Your task to perform on an android device: uninstall "AliExpress" Image 0: 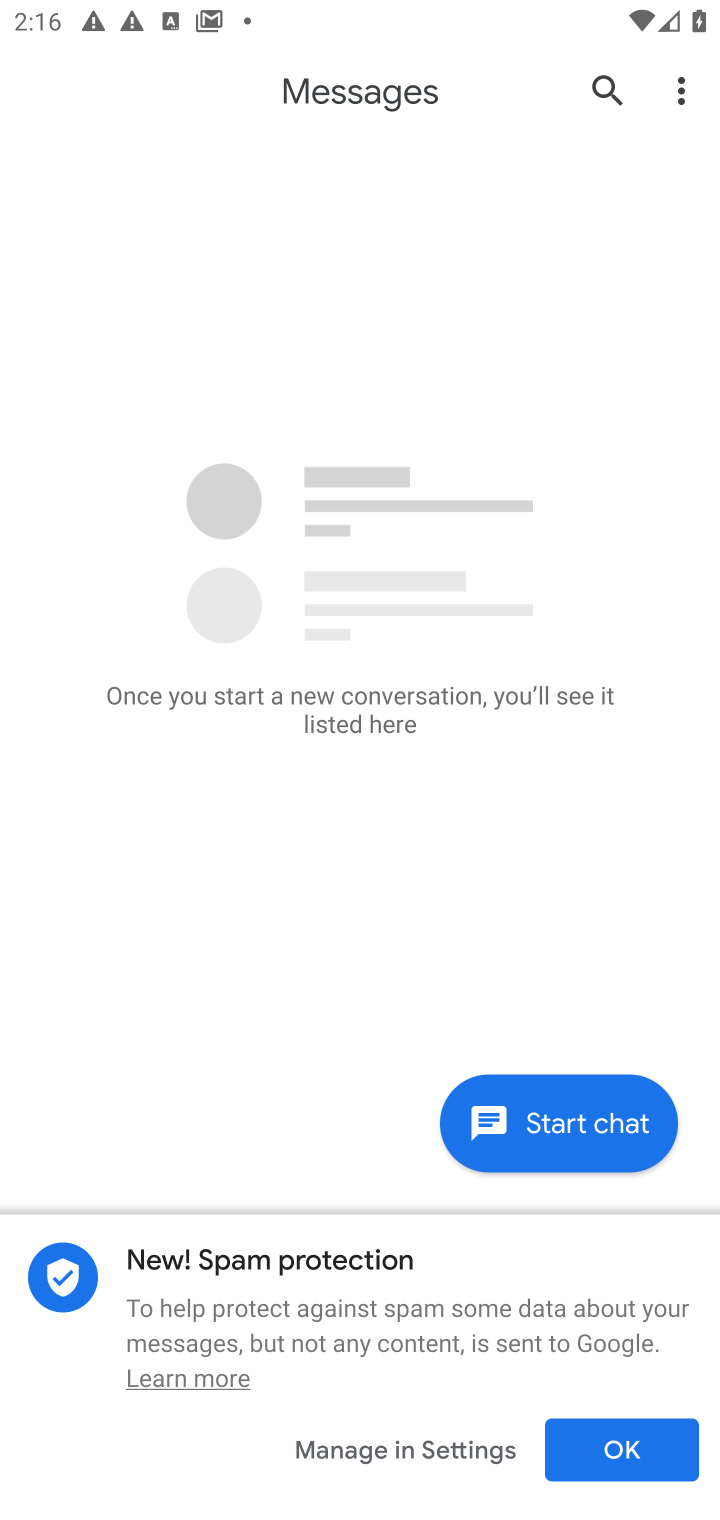
Step 0: press home button
Your task to perform on an android device: uninstall "AliExpress" Image 1: 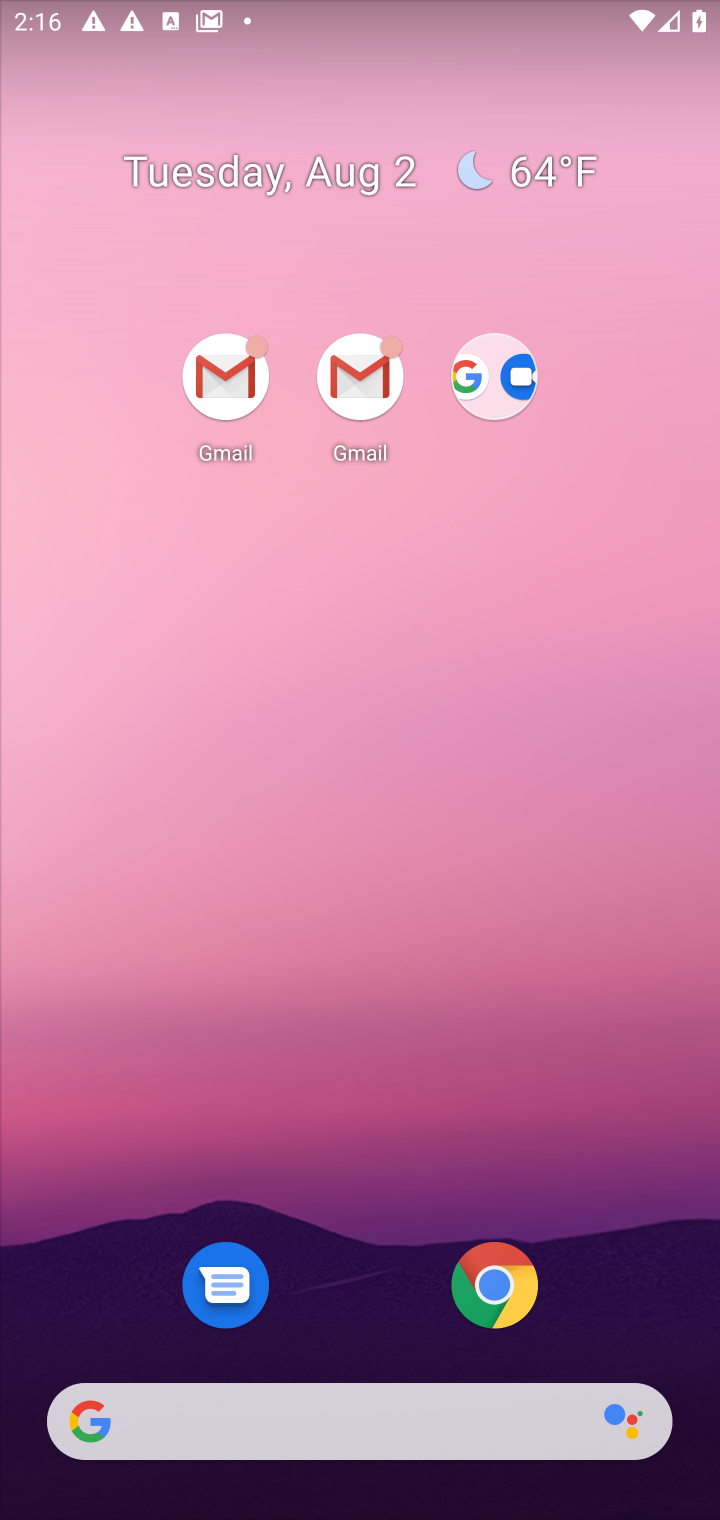
Step 1: drag from (573, 788) to (549, 197)
Your task to perform on an android device: uninstall "AliExpress" Image 2: 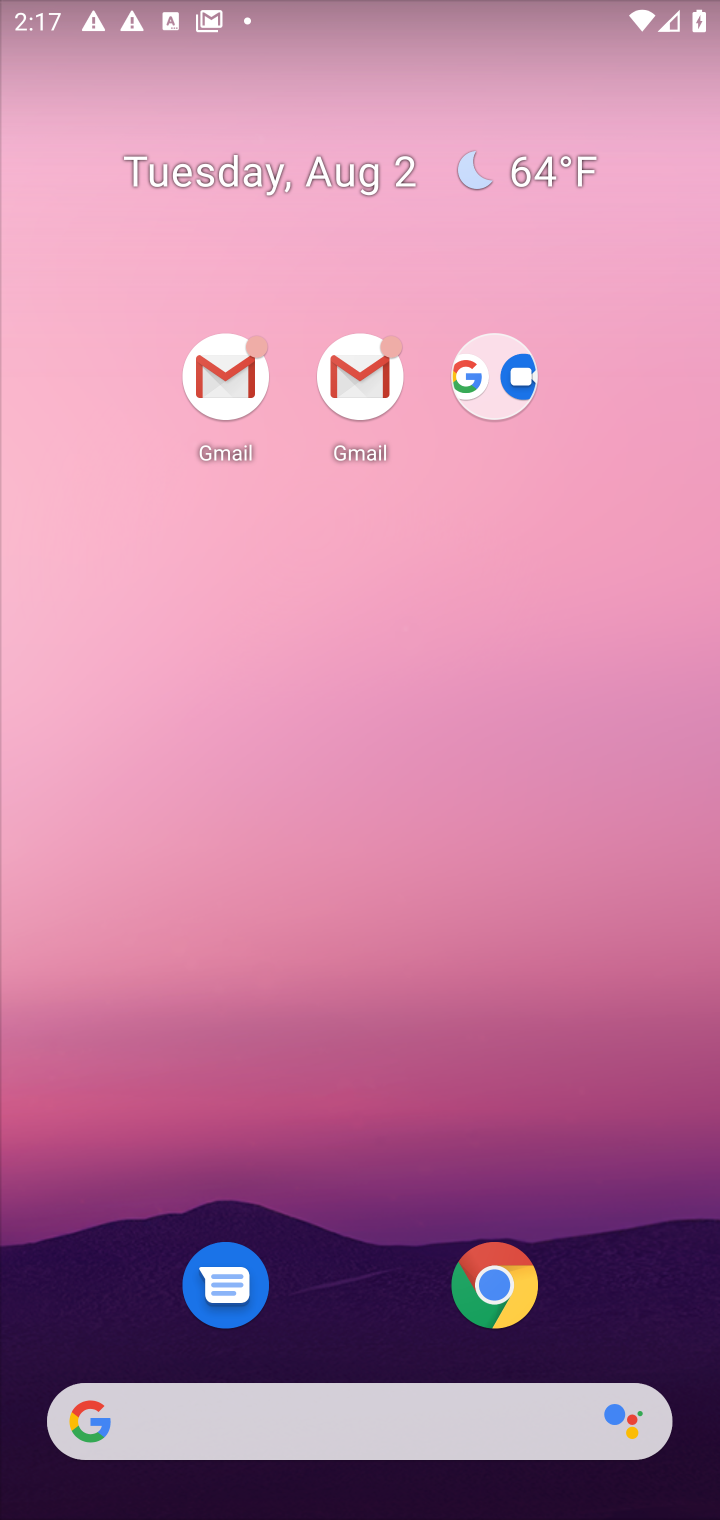
Step 2: drag from (286, 1208) to (412, 140)
Your task to perform on an android device: uninstall "AliExpress" Image 3: 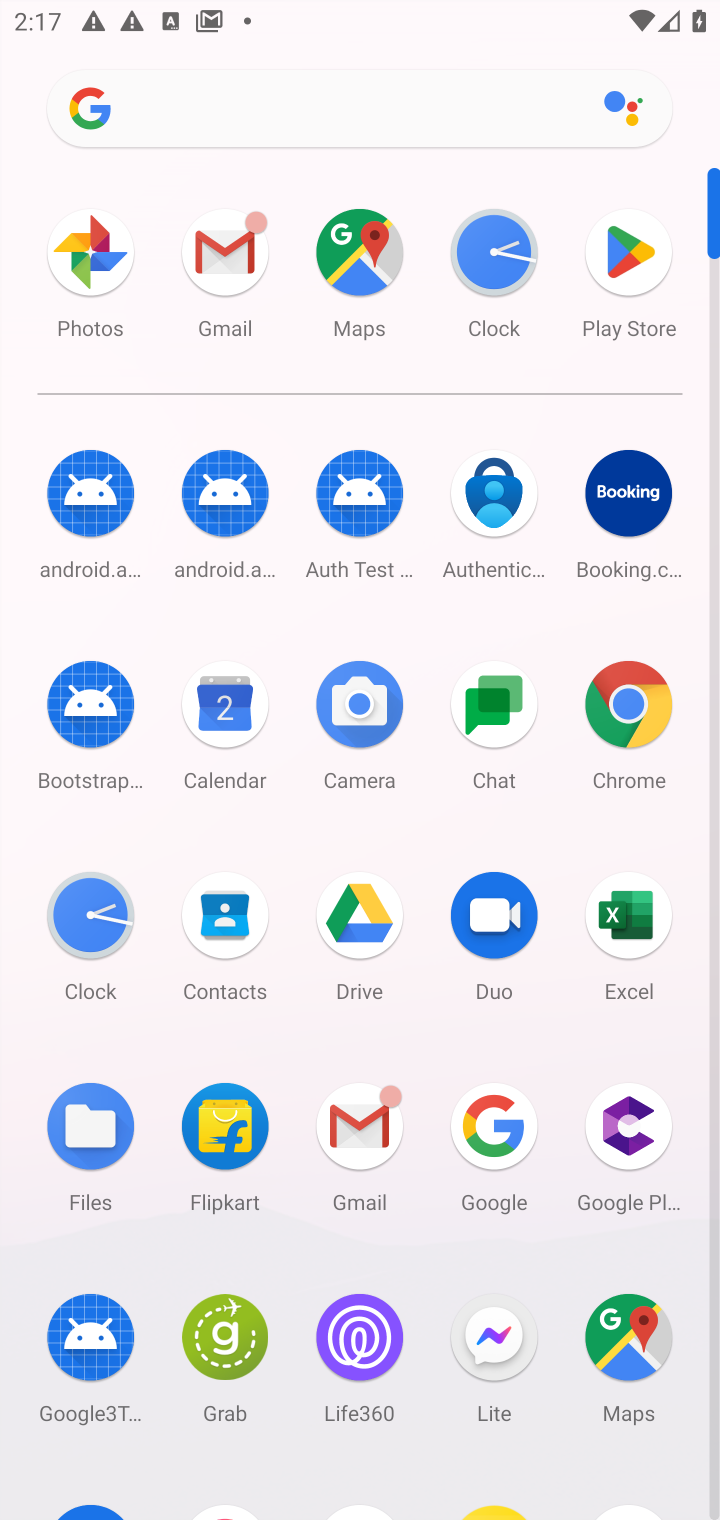
Step 3: drag from (414, 1165) to (412, 434)
Your task to perform on an android device: uninstall "AliExpress" Image 4: 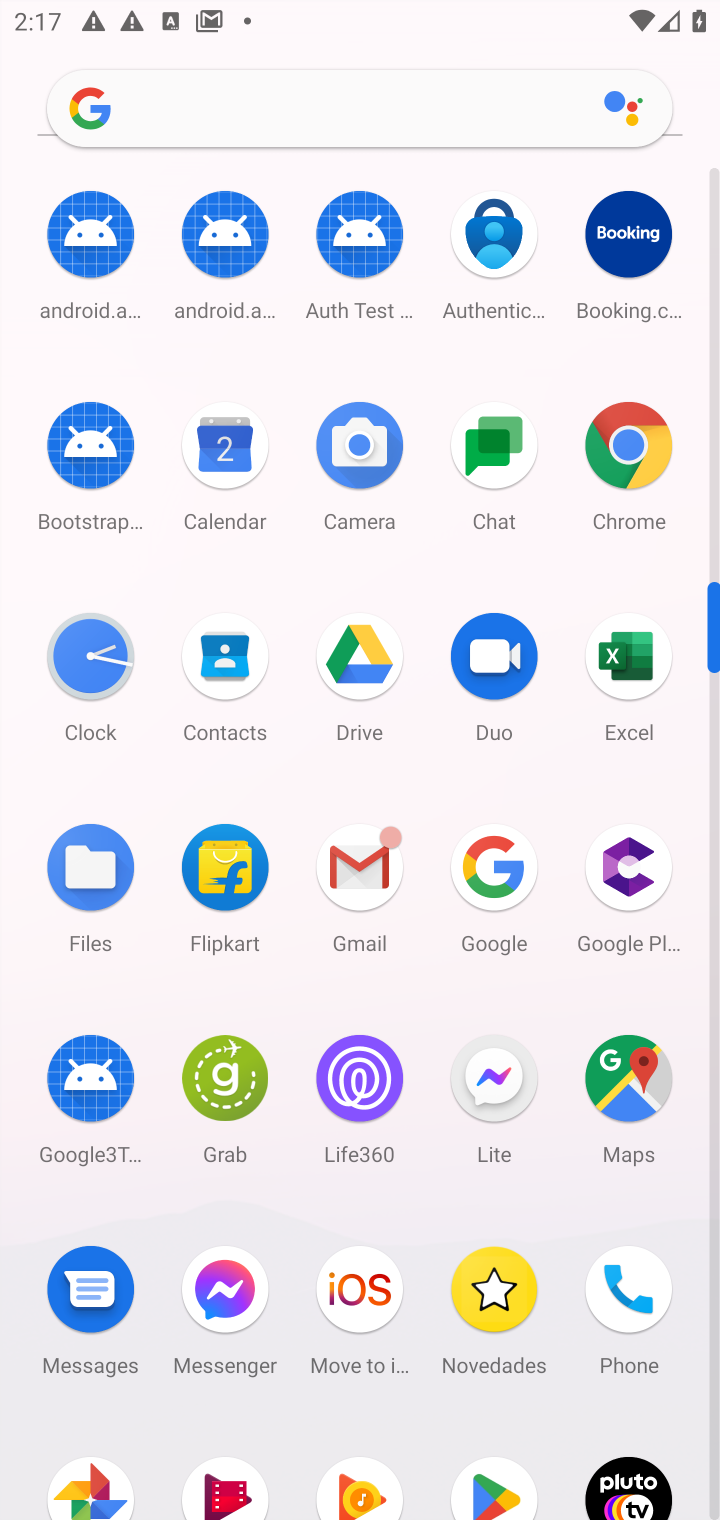
Step 4: click (520, 1503)
Your task to perform on an android device: uninstall "AliExpress" Image 5: 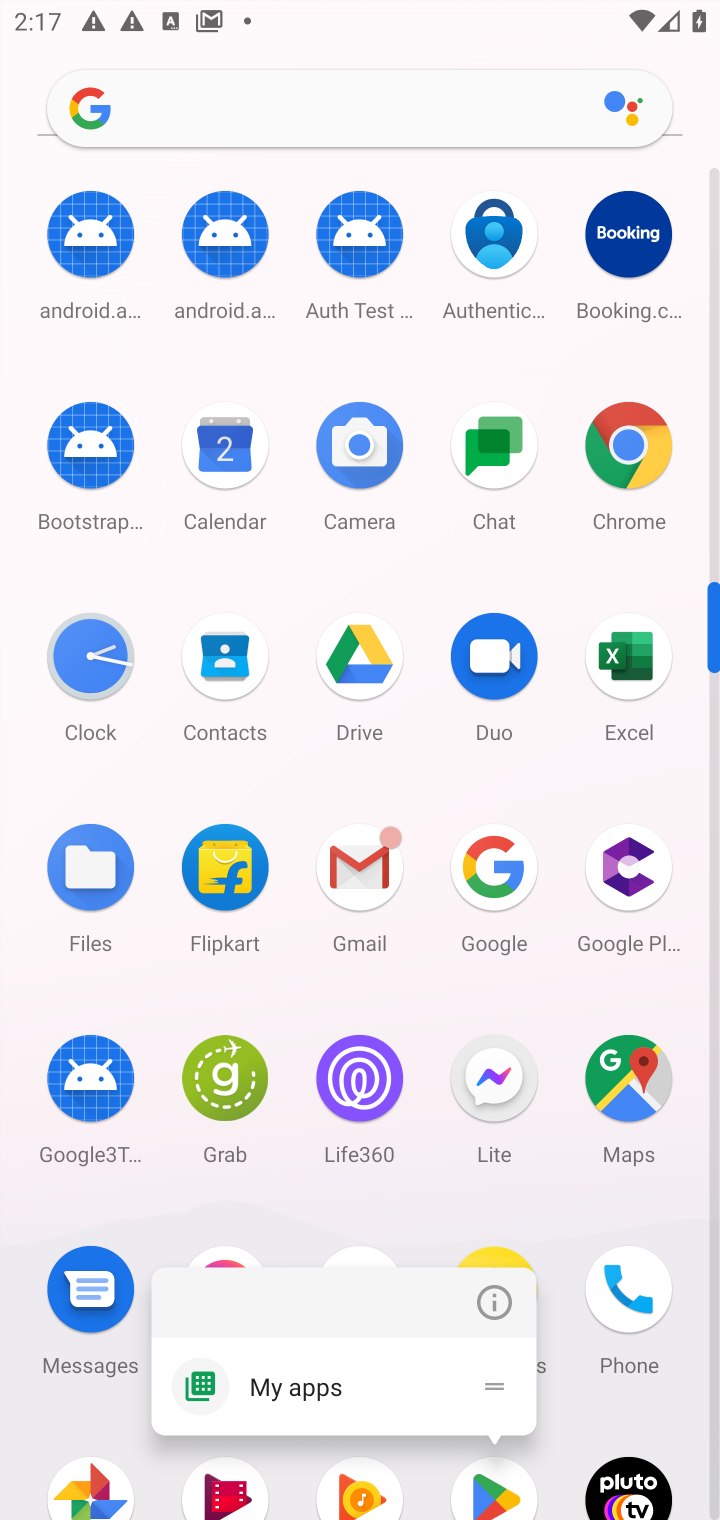
Step 5: click (495, 1505)
Your task to perform on an android device: uninstall "AliExpress" Image 6: 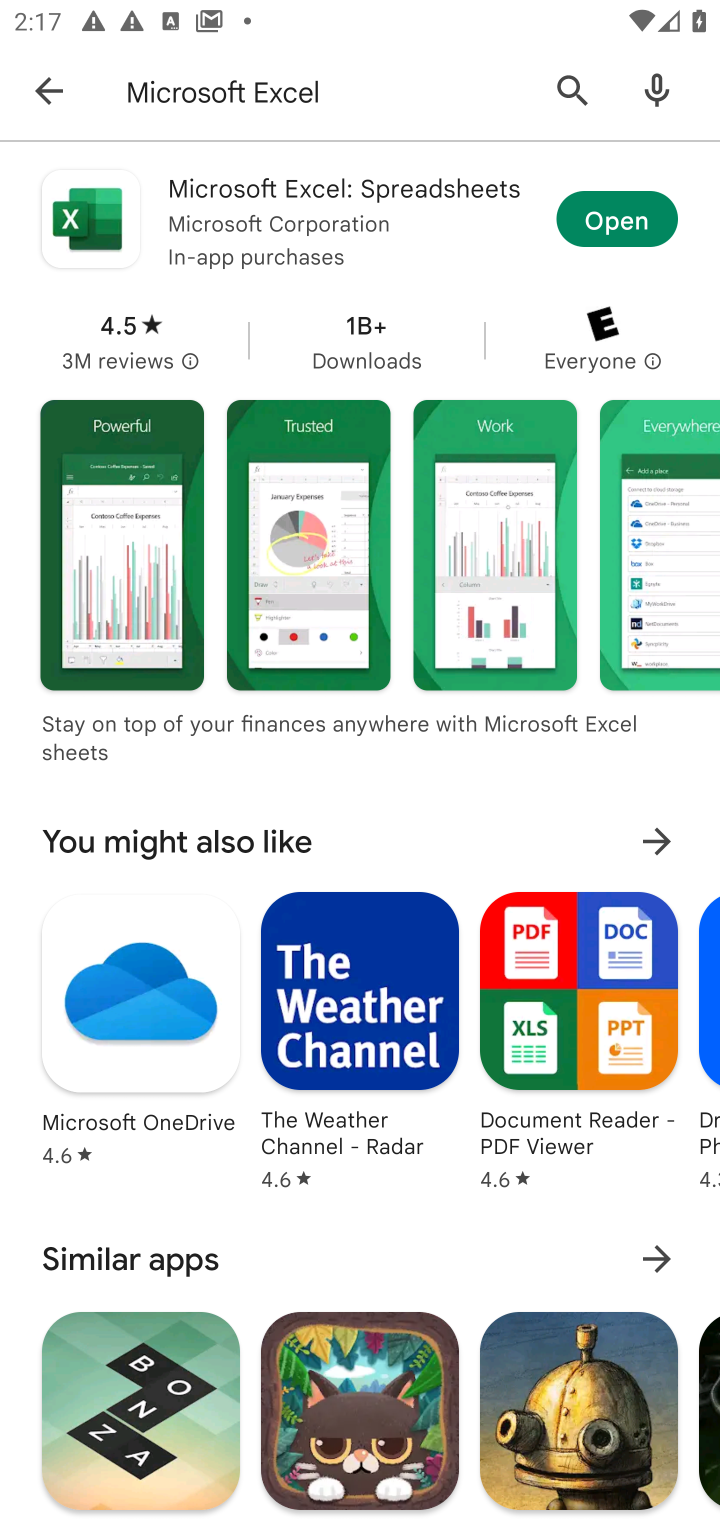
Step 6: click (288, 71)
Your task to perform on an android device: uninstall "AliExpress" Image 7: 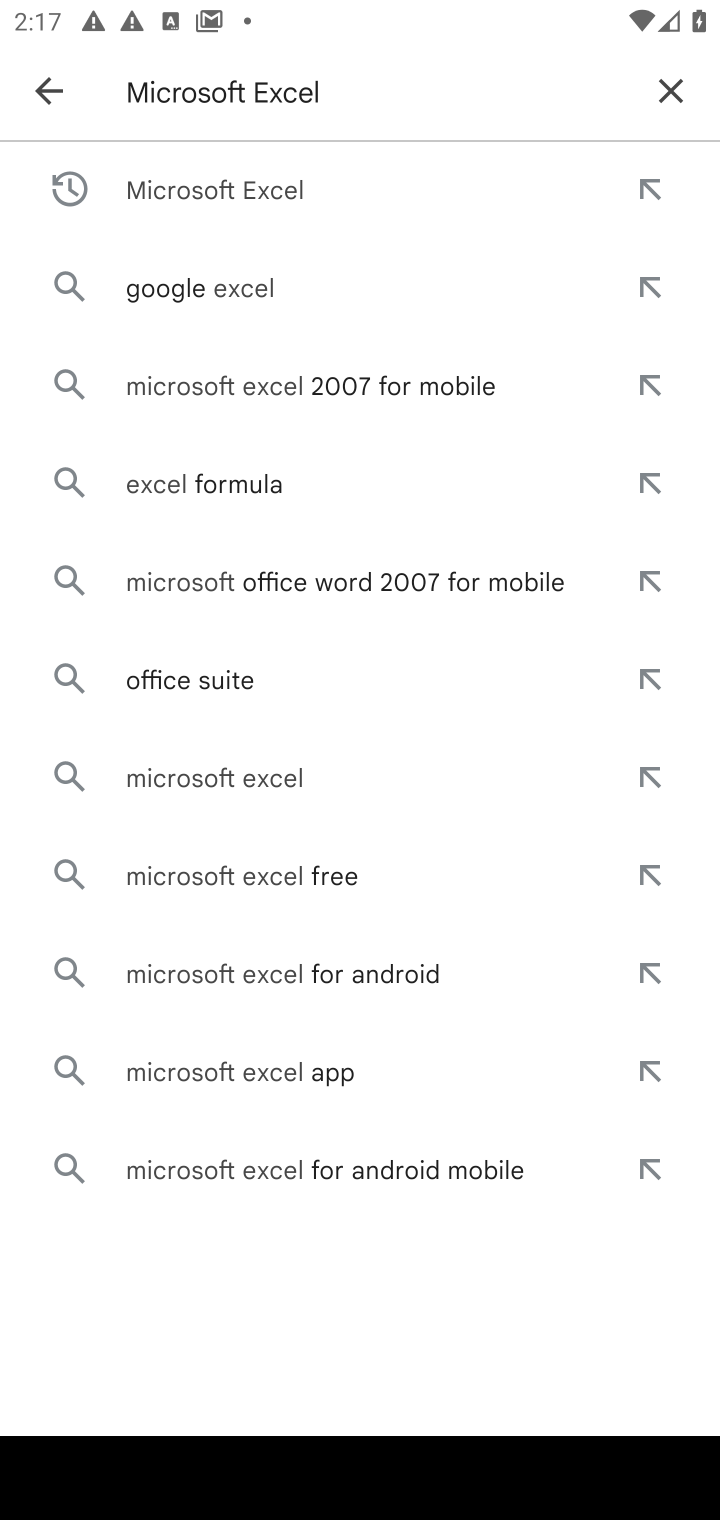
Step 7: click (676, 71)
Your task to perform on an android device: uninstall "AliExpress" Image 8: 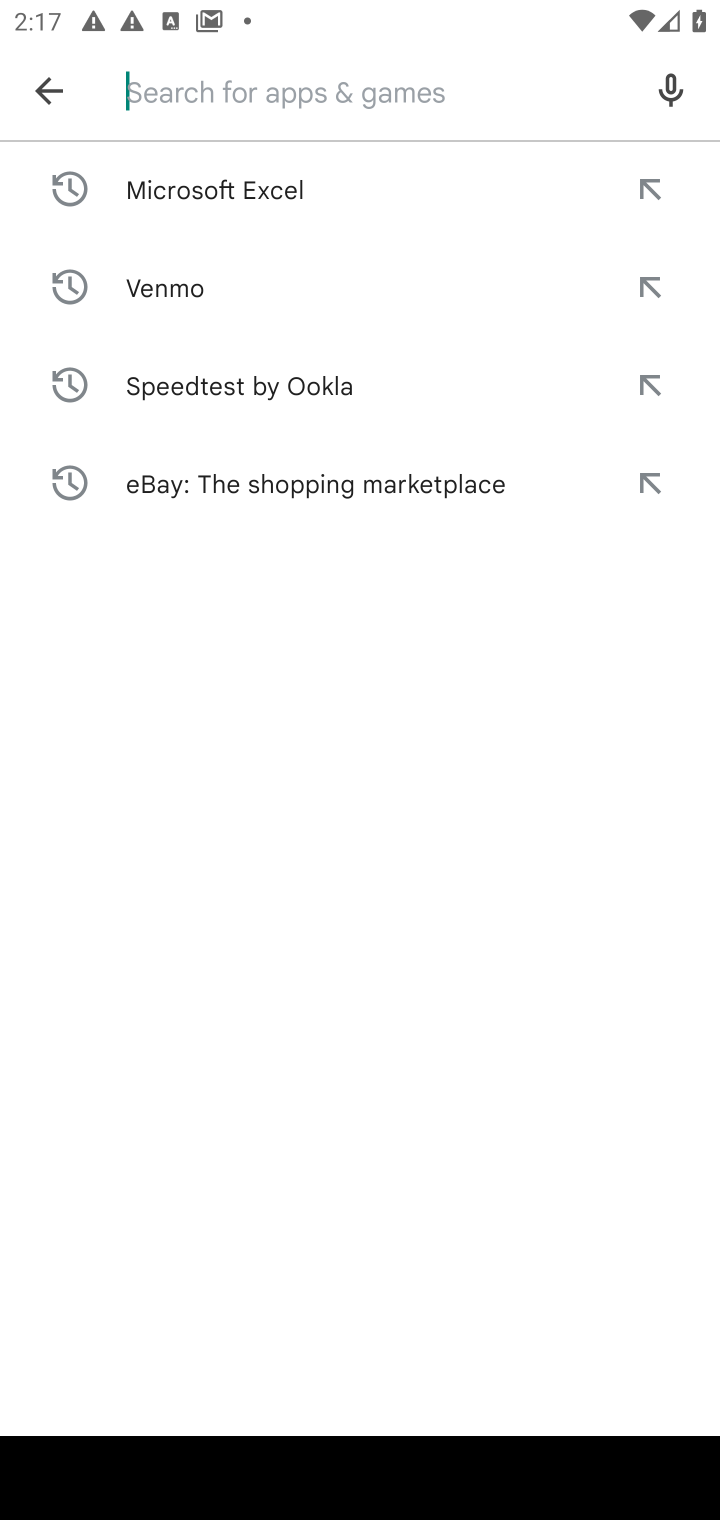
Step 8: type "AliExpress"
Your task to perform on an android device: uninstall "AliExpress" Image 9: 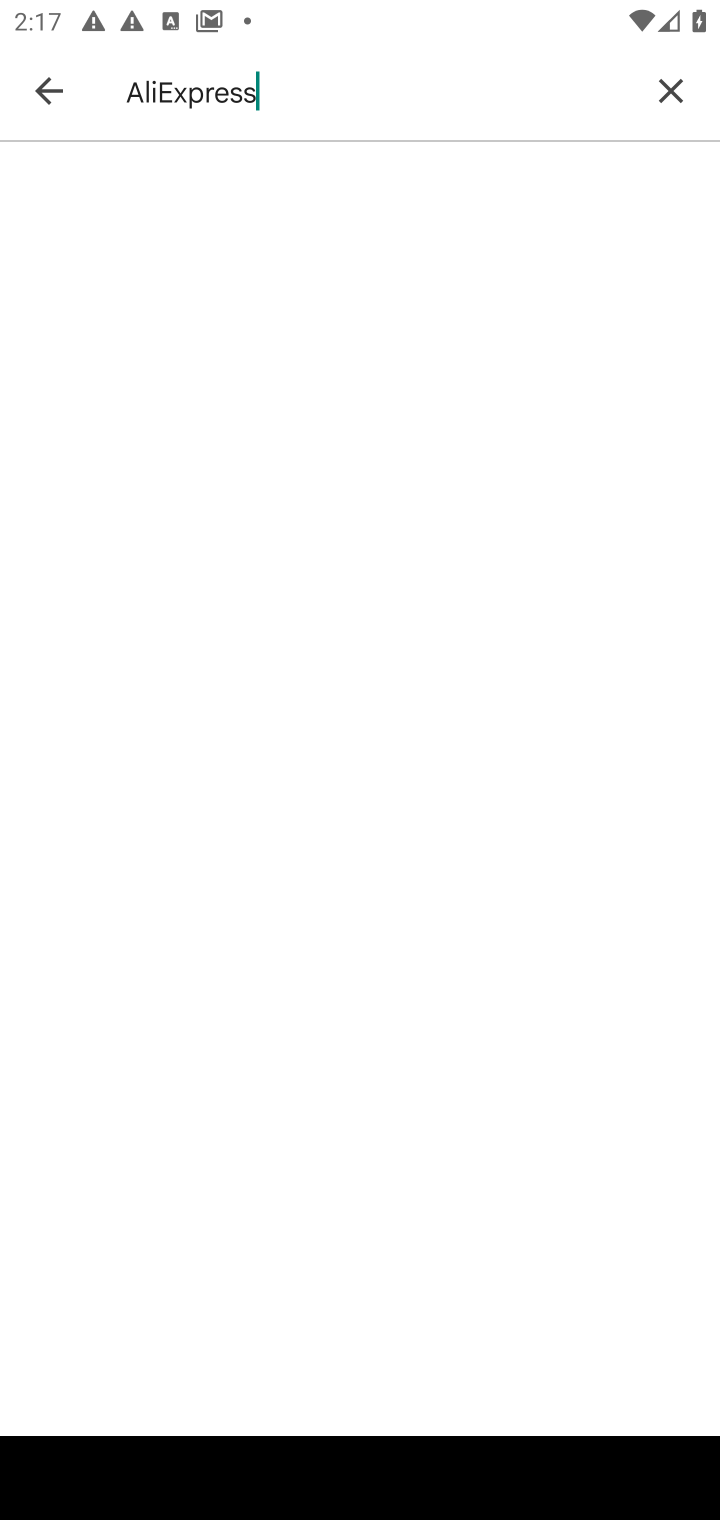
Step 9: press enter
Your task to perform on an android device: uninstall "AliExpress" Image 10: 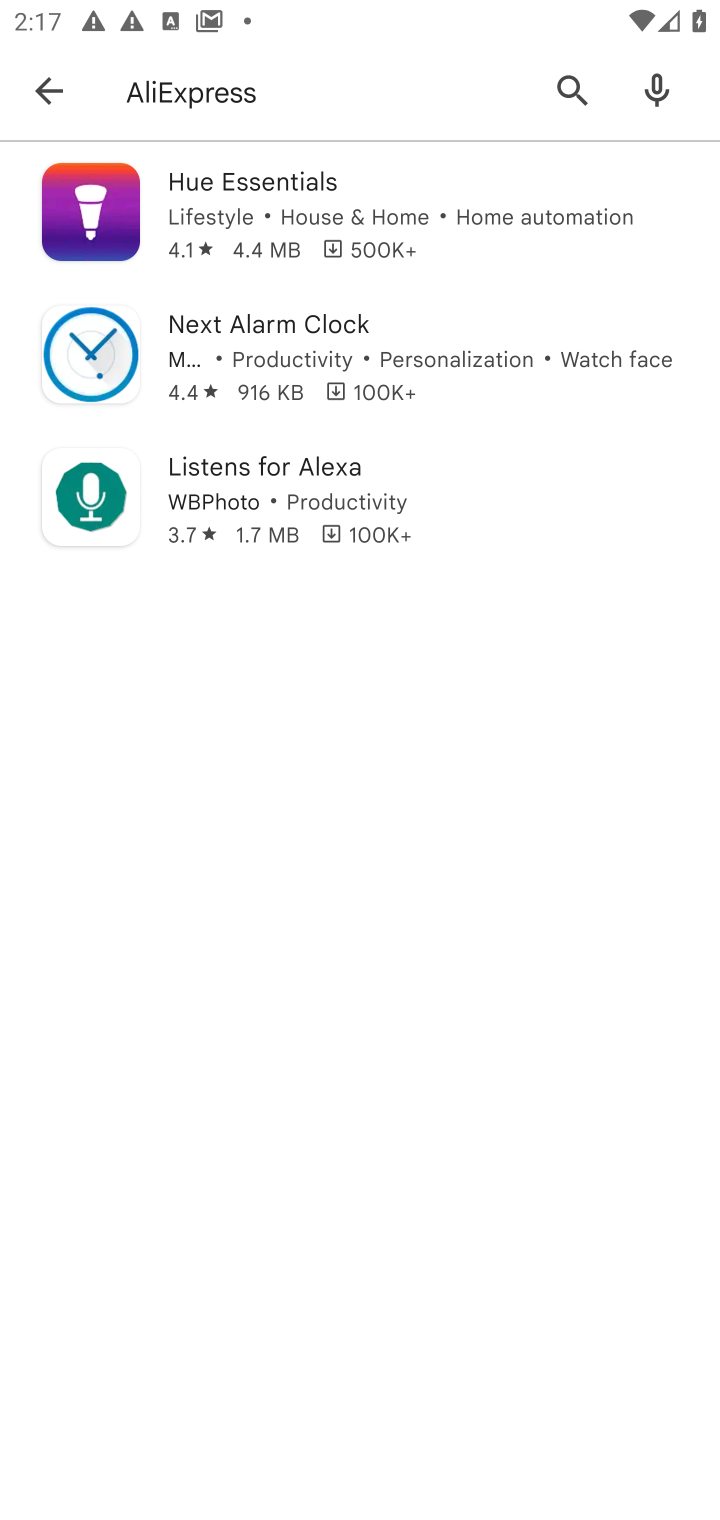
Step 10: task complete